Your task to perform on an android device: check battery use Image 0: 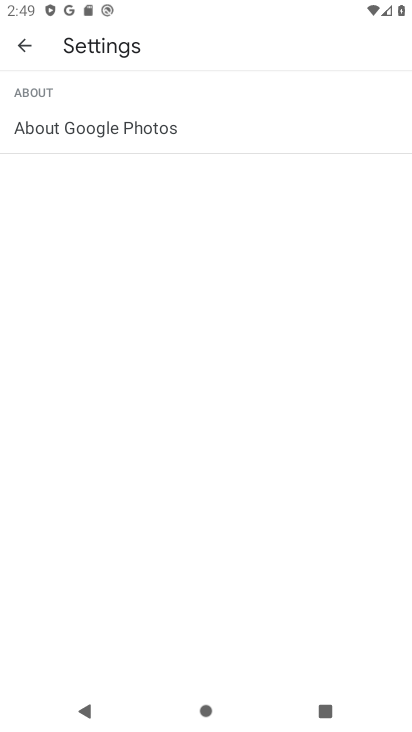
Step 0: press home button
Your task to perform on an android device: check battery use Image 1: 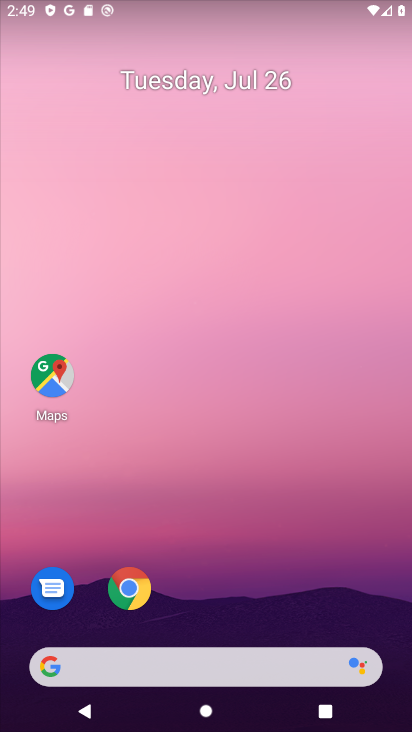
Step 1: drag from (213, 607) to (166, 166)
Your task to perform on an android device: check battery use Image 2: 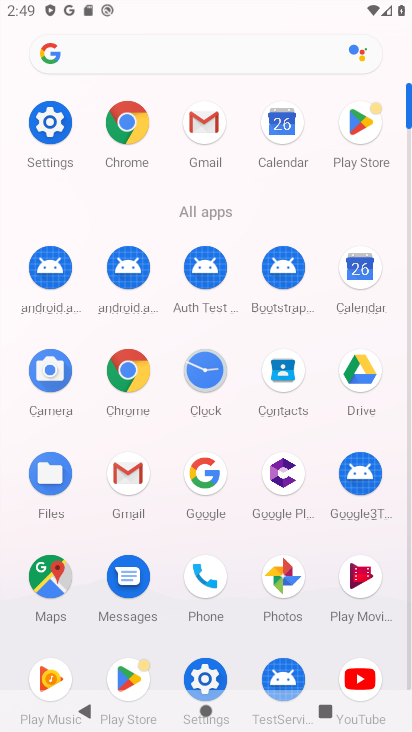
Step 2: click (50, 120)
Your task to perform on an android device: check battery use Image 3: 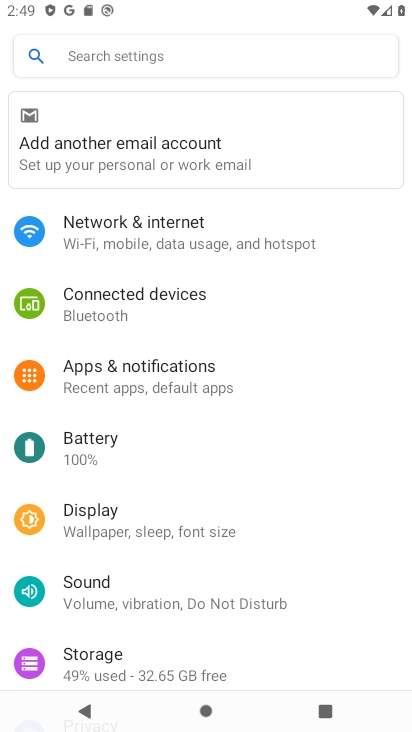
Step 3: click (148, 436)
Your task to perform on an android device: check battery use Image 4: 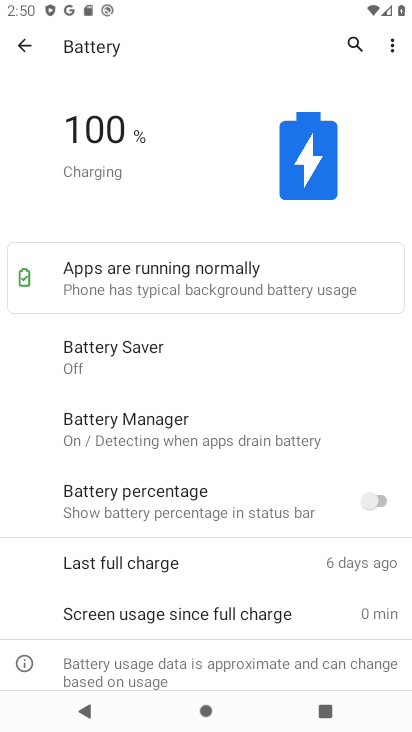
Step 4: click (395, 46)
Your task to perform on an android device: check battery use Image 5: 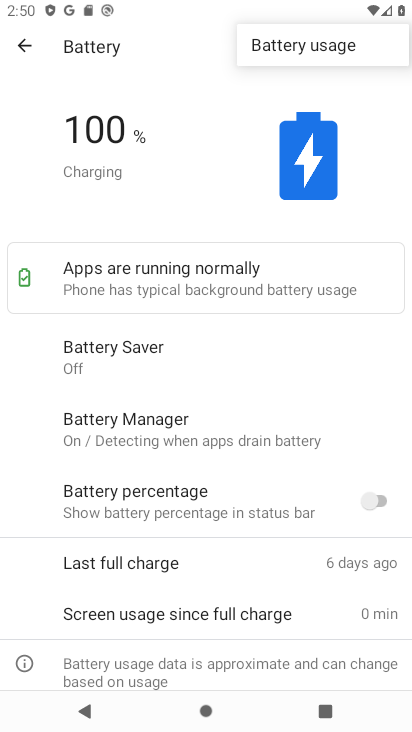
Step 5: click (347, 49)
Your task to perform on an android device: check battery use Image 6: 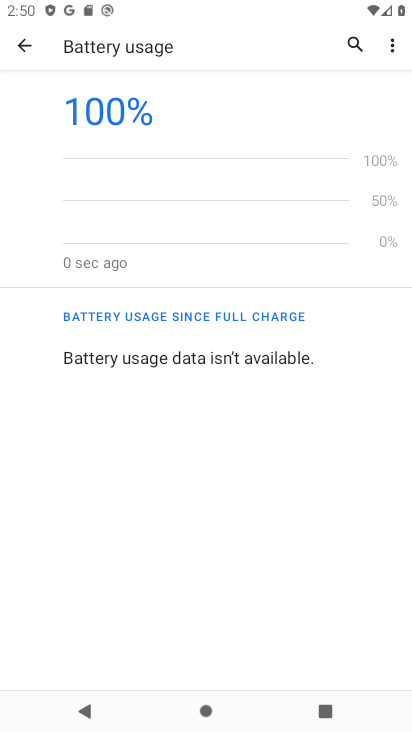
Step 6: task complete